Your task to perform on an android device: turn pop-ups off in chrome Image 0: 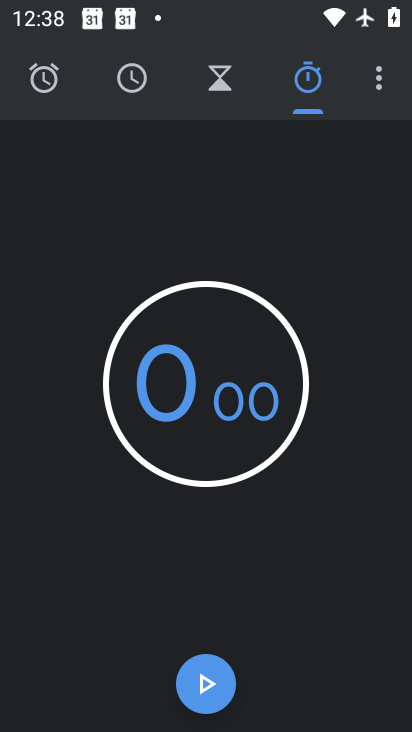
Step 0: press home button
Your task to perform on an android device: turn pop-ups off in chrome Image 1: 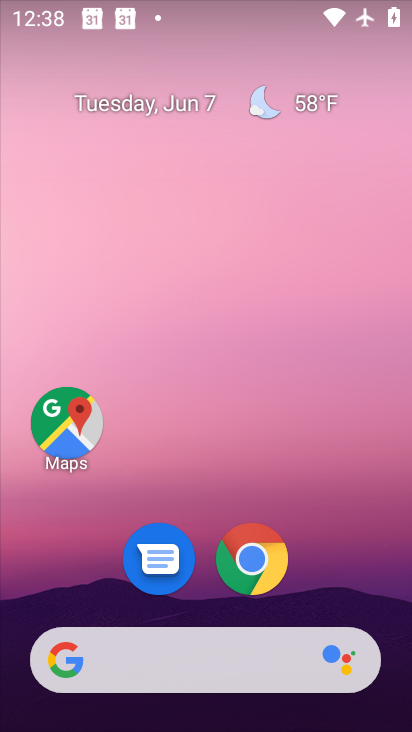
Step 1: click (256, 564)
Your task to perform on an android device: turn pop-ups off in chrome Image 2: 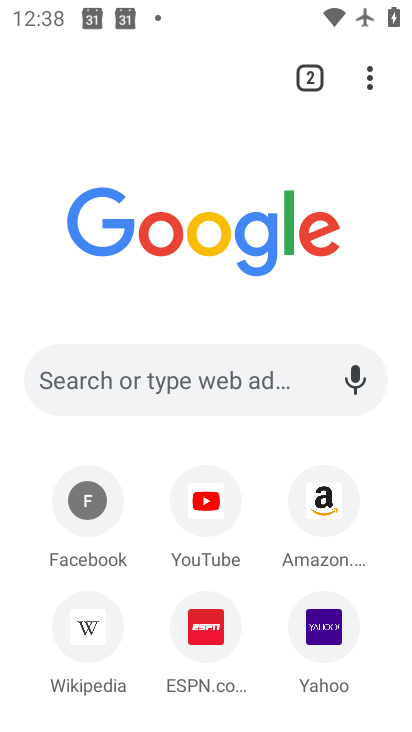
Step 2: click (368, 79)
Your task to perform on an android device: turn pop-ups off in chrome Image 3: 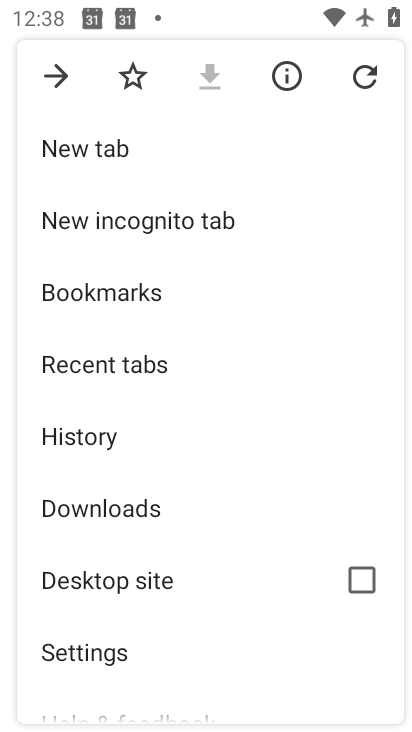
Step 3: click (117, 645)
Your task to perform on an android device: turn pop-ups off in chrome Image 4: 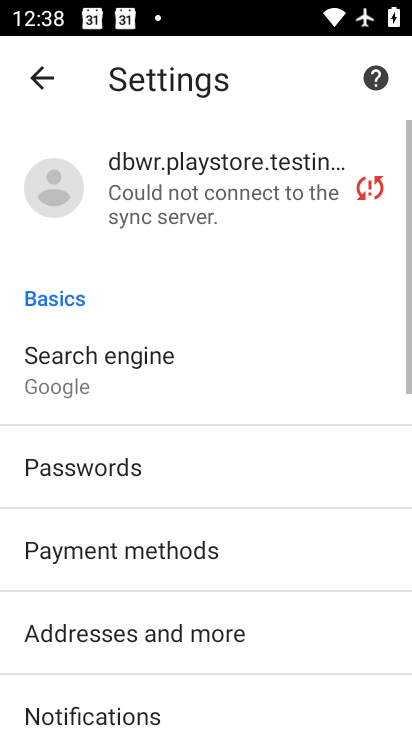
Step 4: drag from (285, 663) to (257, 155)
Your task to perform on an android device: turn pop-ups off in chrome Image 5: 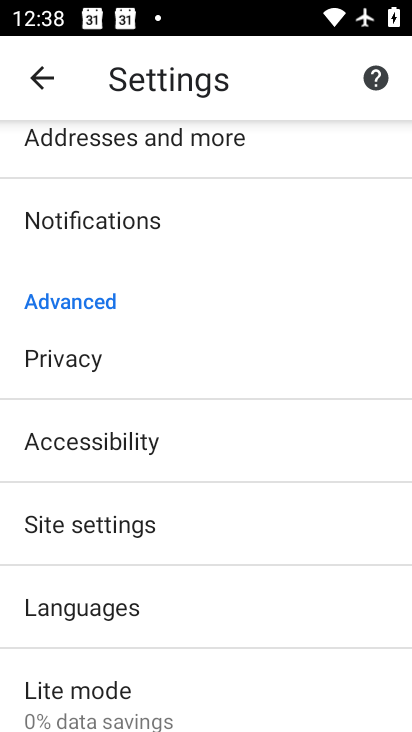
Step 5: click (89, 524)
Your task to perform on an android device: turn pop-ups off in chrome Image 6: 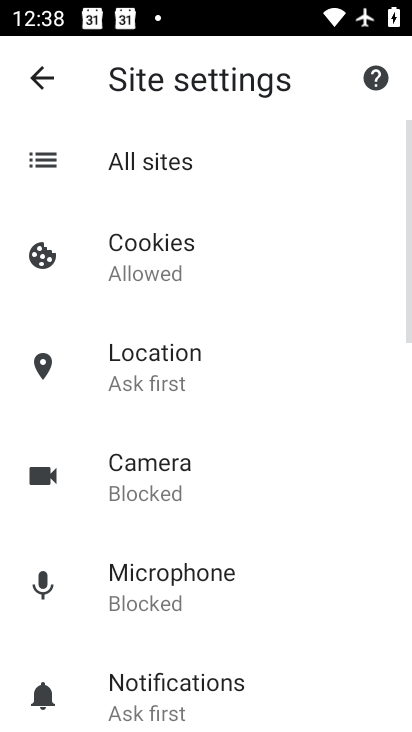
Step 6: drag from (265, 669) to (283, 156)
Your task to perform on an android device: turn pop-ups off in chrome Image 7: 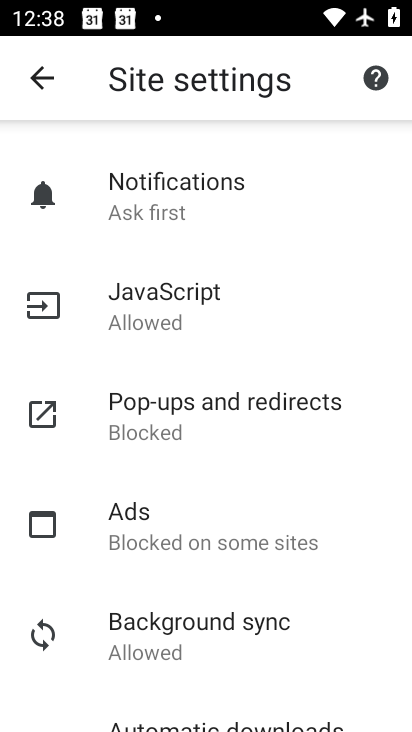
Step 7: click (146, 422)
Your task to perform on an android device: turn pop-ups off in chrome Image 8: 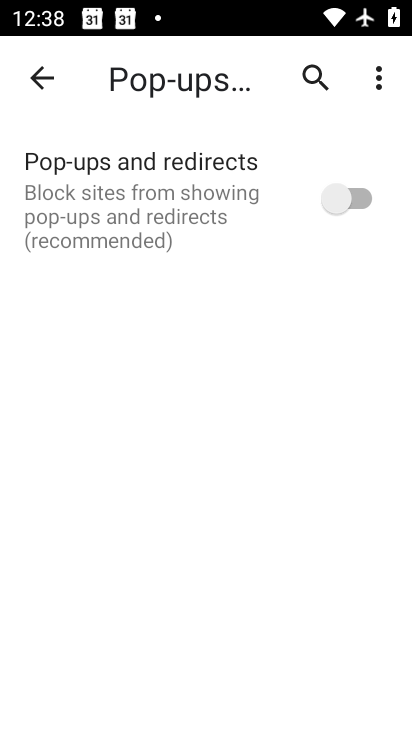
Step 8: task complete